Your task to perform on an android device: Show me productivity apps on the Play Store Image 0: 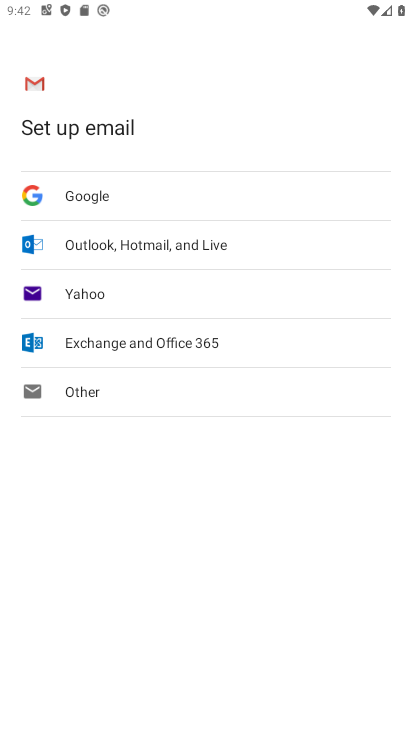
Step 0: press home button
Your task to perform on an android device: Show me productivity apps on the Play Store Image 1: 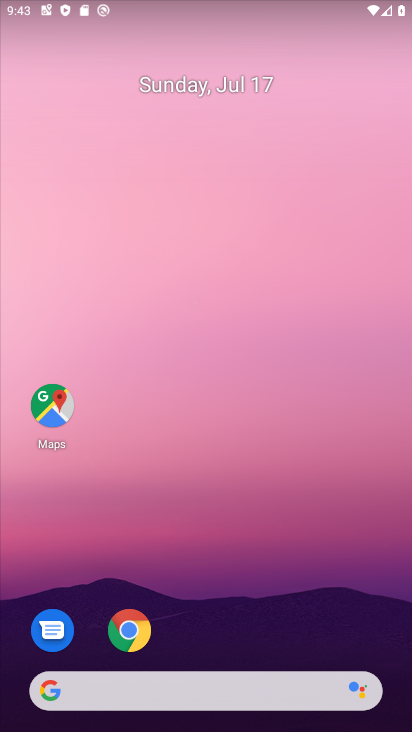
Step 1: drag from (317, 675) to (302, 91)
Your task to perform on an android device: Show me productivity apps on the Play Store Image 2: 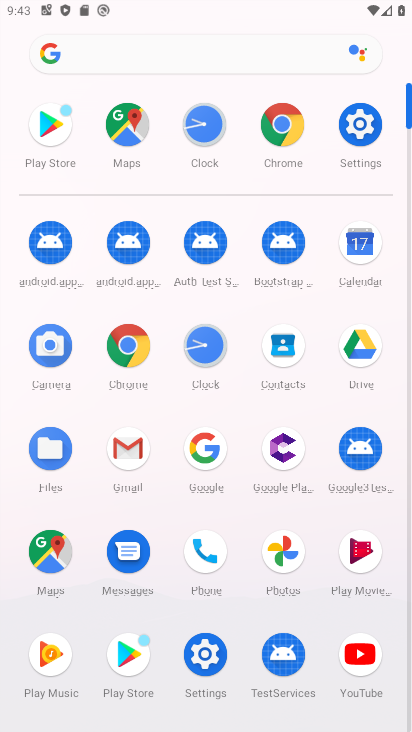
Step 2: click (119, 659)
Your task to perform on an android device: Show me productivity apps on the Play Store Image 3: 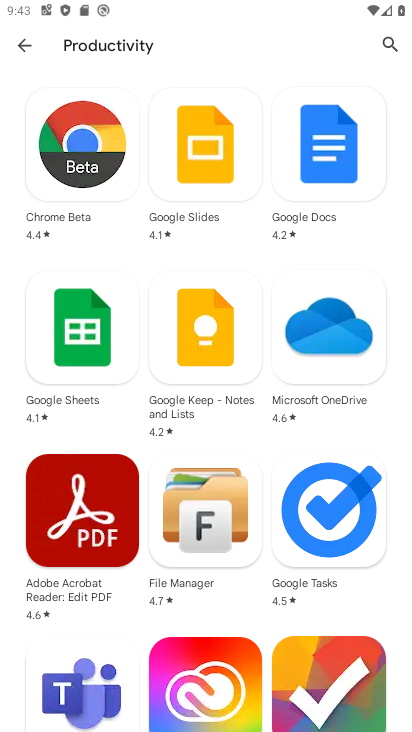
Step 3: task complete